Your task to perform on an android device: check the backup settings in the google photos Image 0: 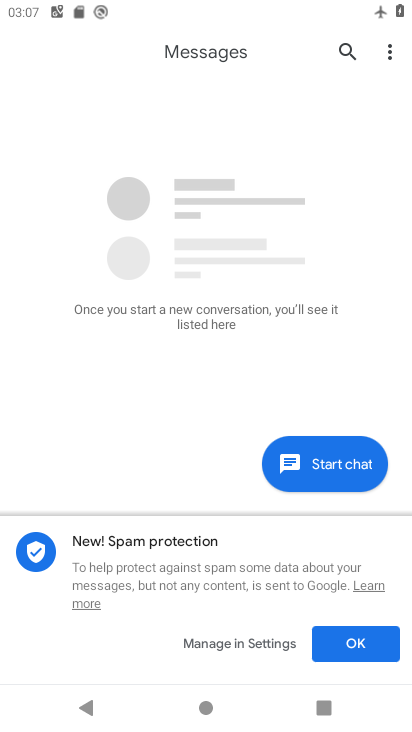
Step 0: press home button
Your task to perform on an android device: check the backup settings in the google photos Image 1: 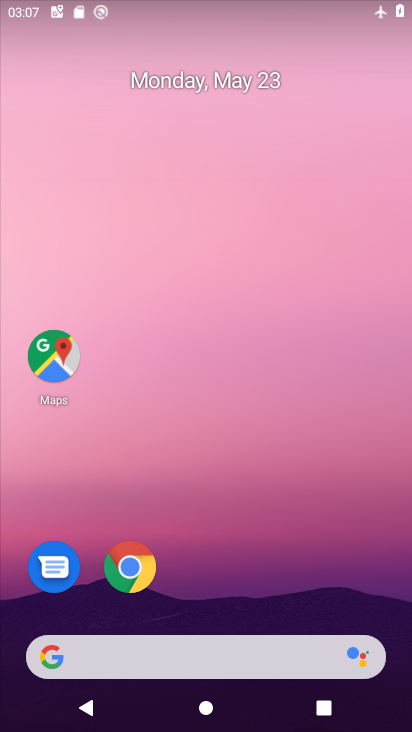
Step 1: drag from (305, 577) to (223, 276)
Your task to perform on an android device: check the backup settings in the google photos Image 2: 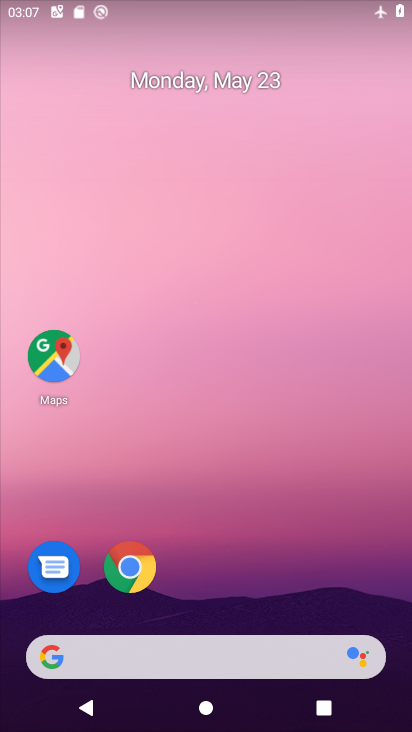
Step 2: drag from (198, 537) to (193, 124)
Your task to perform on an android device: check the backup settings in the google photos Image 3: 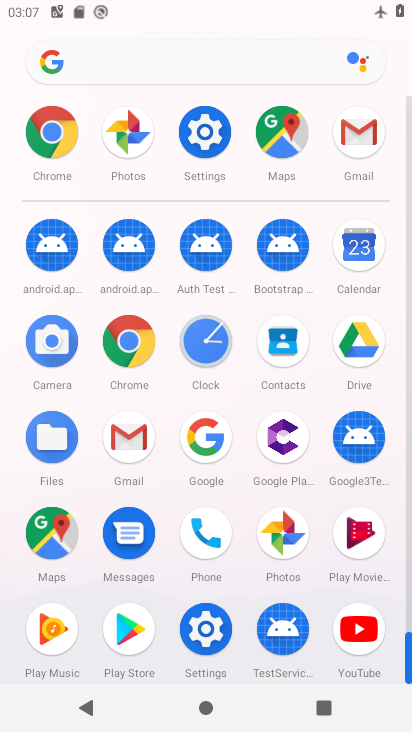
Step 3: click (277, 553)
Your task to perform on an android device: check the backup settings in the google photos Image 4: 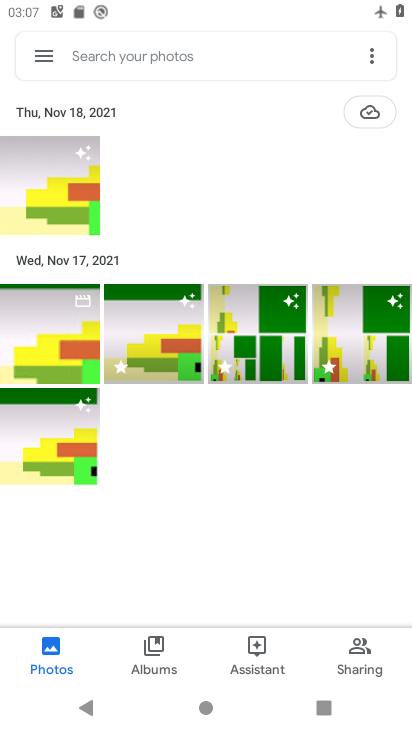
Step 4: click (373, 69)
Your task to perform on an android device: check the backup settings in the google photos Image 5: 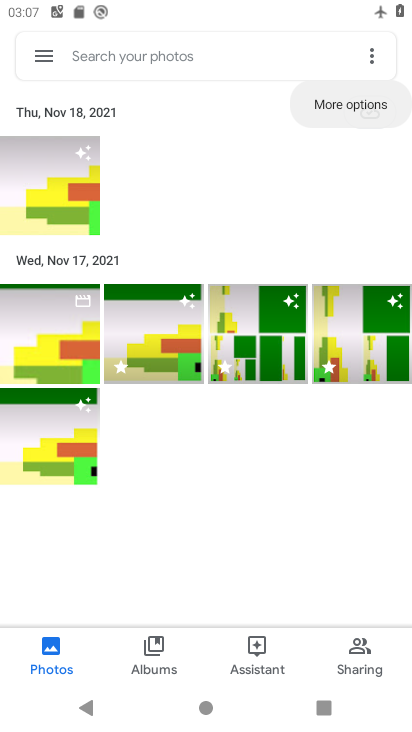
Step 5: click (375, 57)
Your task to perform on an android device: check the backup settings in the google photos Image 6: 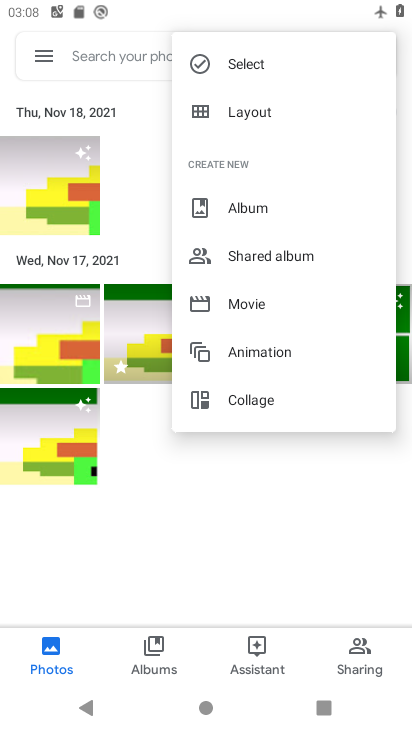
Step 6: click (37, 62)
Your task to perform on an android device: check the backup settings in the google photos Image 7: 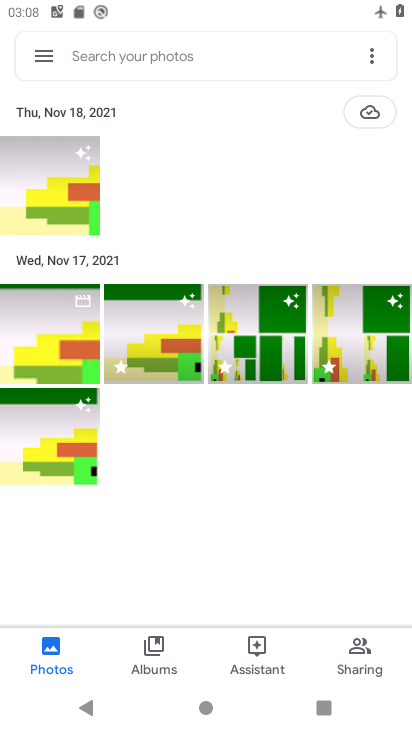
Step 7: click (38, 65)
Your task to perform on an android device: check the backup settings in the google photos Image 8: 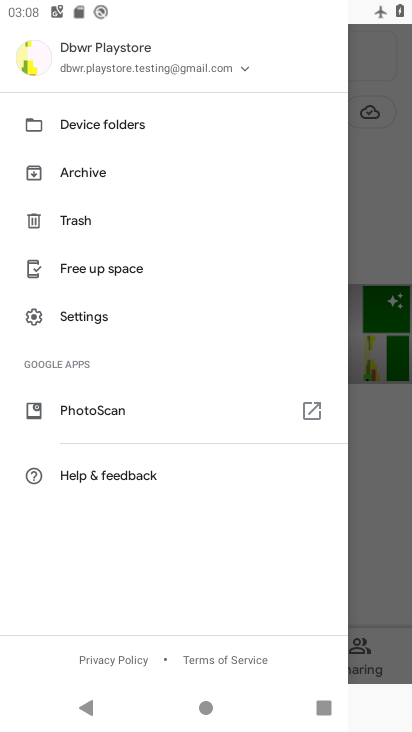
Step 8: click (90, 322)
Your task to perform on an android device: check the backup settings in the google photos Image 9: 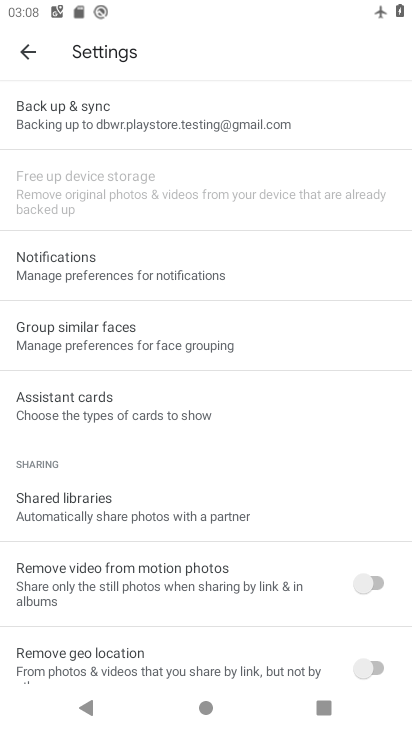
Step 9: drag from (170, 462) to (164, 588)
Your task to perform on an android device: check the backup settings in the google photos Image 10: 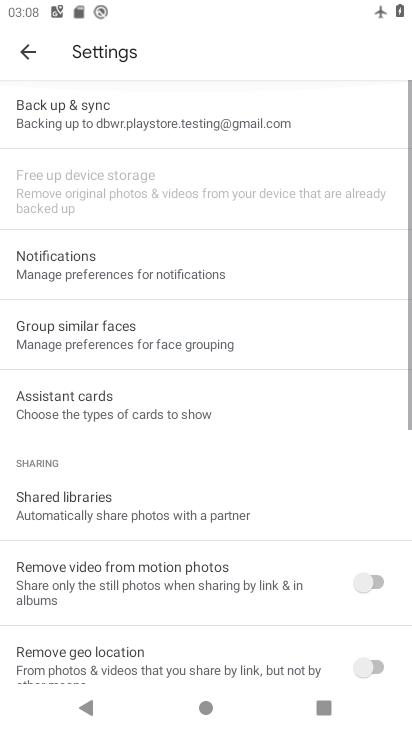
Step 10: click (125, 121)
Your task to perform on an android device: check the backup settings in the google photos Image 11: 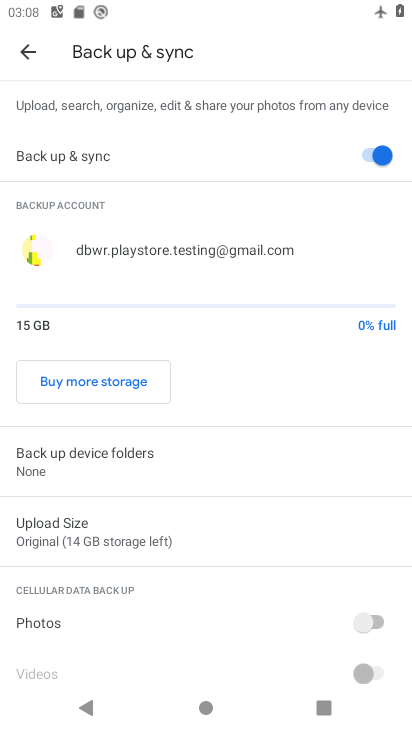
Step 11: task complete